Your task to perform on an android device: Open calendar and show me the third week of next month Image 0: 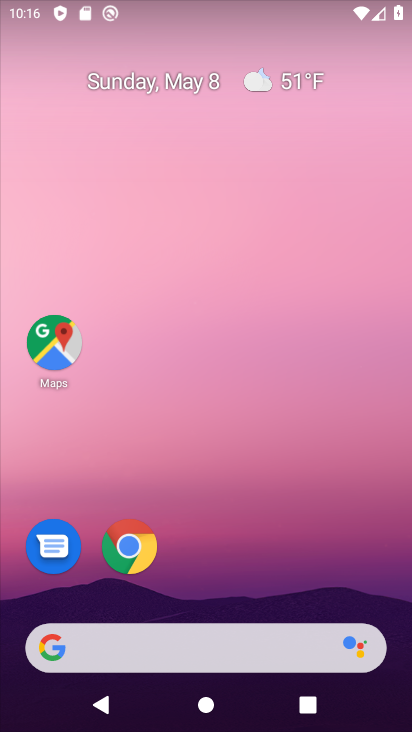
Step 0: drag from (222, 551) to (271, 62)
Your task to perform on an android device: Open calendar and show me the third week of next month Image 1: 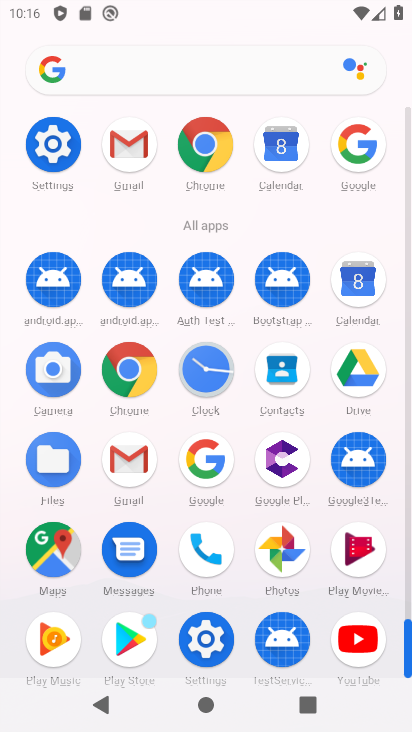
Step 1: click (360, 279)
Your task to perform on an android device: Open calendar and show me the third week of next month Image 2: 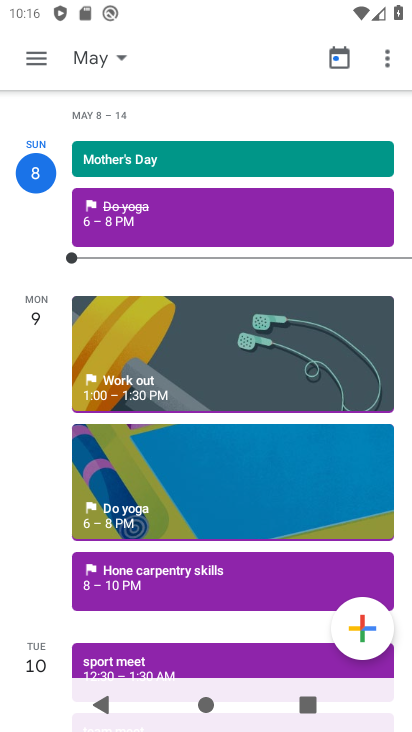
Step 2: click (128, 57)
Your task to perform on an android device: Open calendar and show me the third week of next month Image 3: 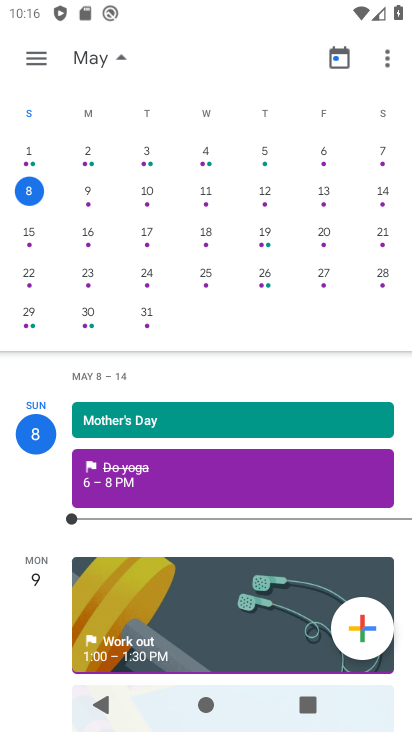
Step 3: drag from (394, 213) to (5, 211)
Your task to perform on an android device: Open calendar and show me the third week of next month Image 4: 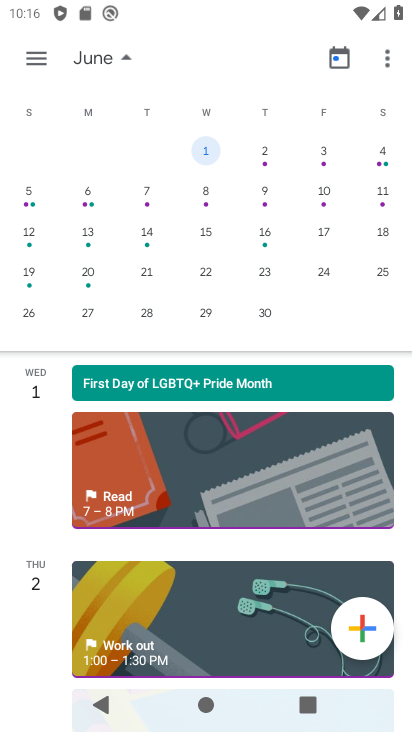
Step 4: click (92, 265)
Your task to perform on an android device: Open calendar and show me the third week of next month Image 5: 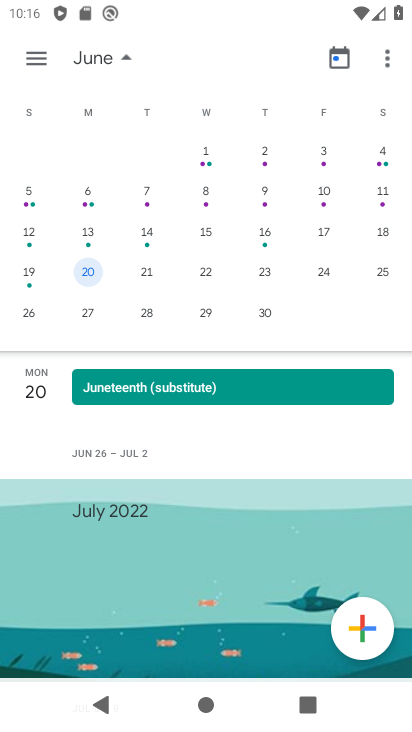
Step 5: click (36, 57)
Your task to perform on an android device: Open calendar and show me the third week of next month Image 6: 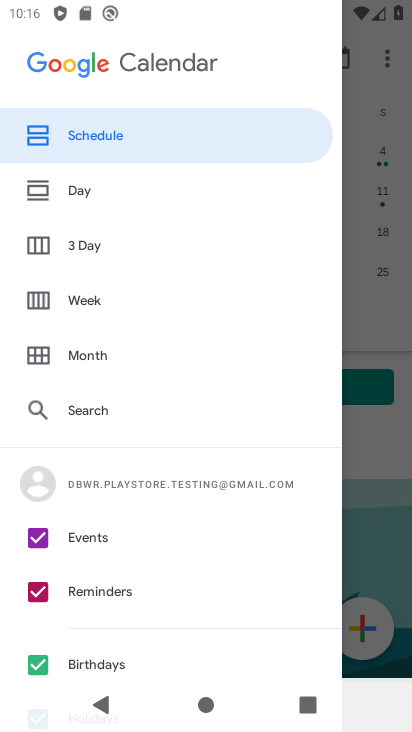
Step 6: click (112, 302)
Your task to perform on an android device: Open calendar and show me the third week of next month Image 7: 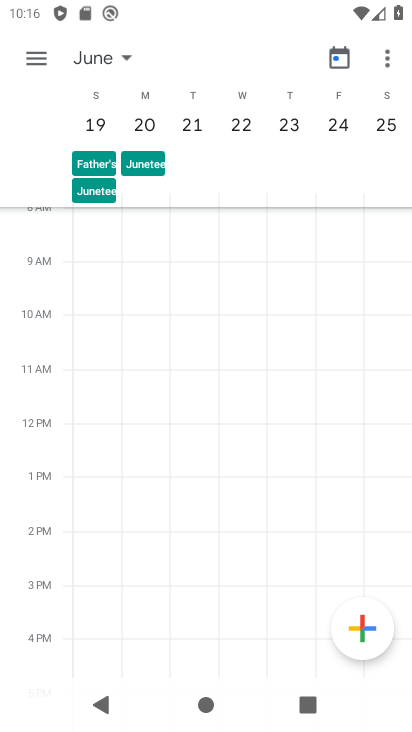
Step 7: task complete